Your task to perform on an android device: check android version Image 0: 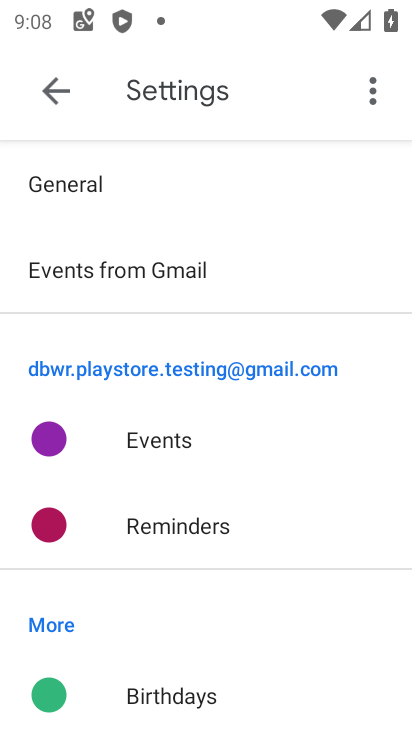
Step 0: press home button
Your task to perform on an android device: check android version Image 1: 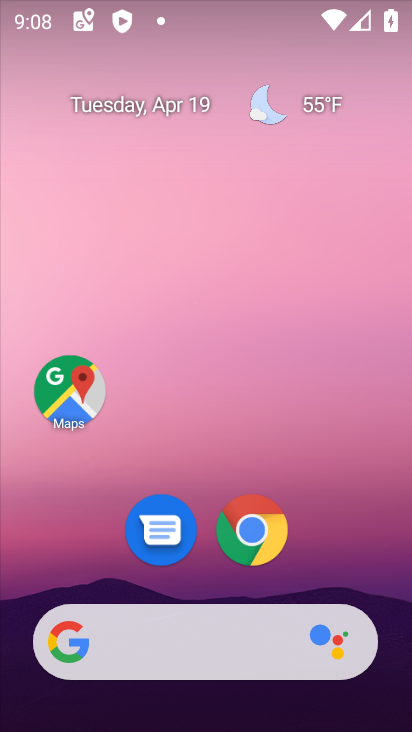
Step 1: drag from (208, 572) to (224, 132)
Your task to perform on an android device: check android version Image 2: 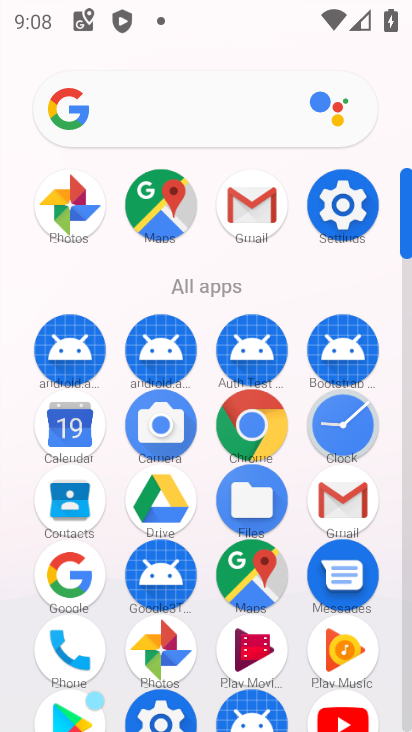
Step 2: click (338, 206)
Your task to perform on an android device: check android version Image 3: 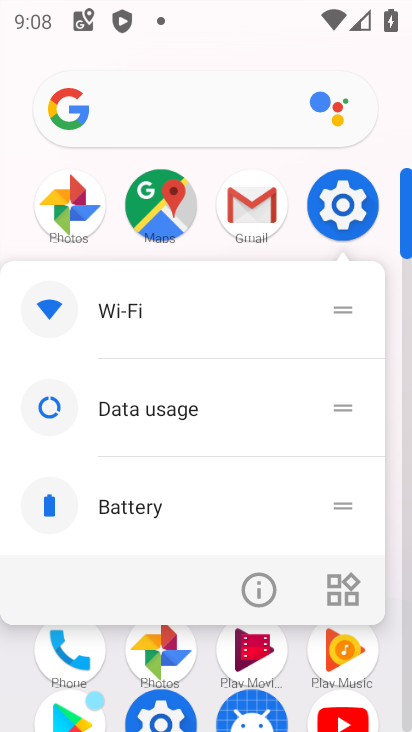
Step 3: click (341, 190)
Your task to perform on an android device: check android version Image 4: 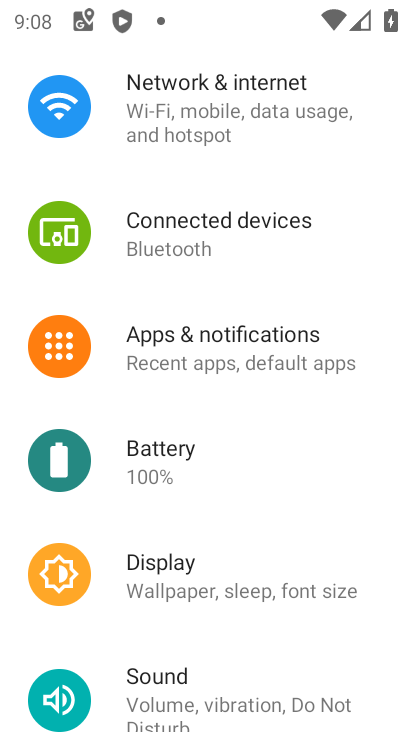
Step 4: drag from (229, 555) to (219, 48)
Your task to perform on an android device: check android version Image 5: 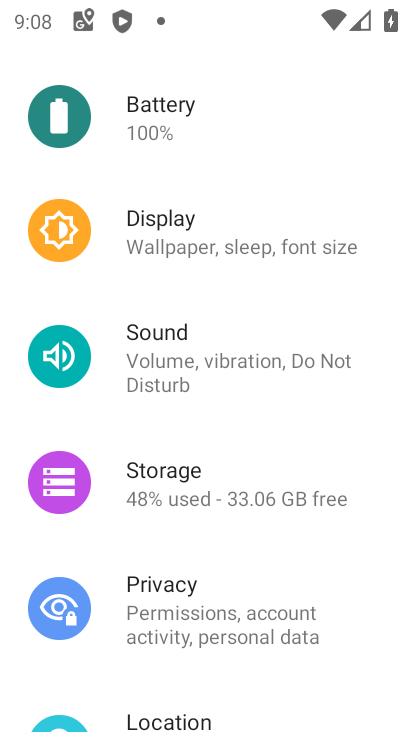
Step 5: drag from (264, 573) to (209, 30)
Your task to perform on an android device: check android version Image 6: 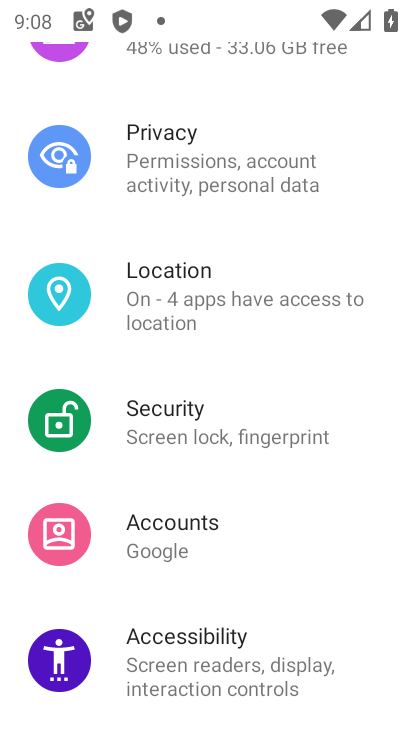
Step 6: drag from (247, 552) to (233, 44)
Your task to perform on an android device: check android version Image 7: 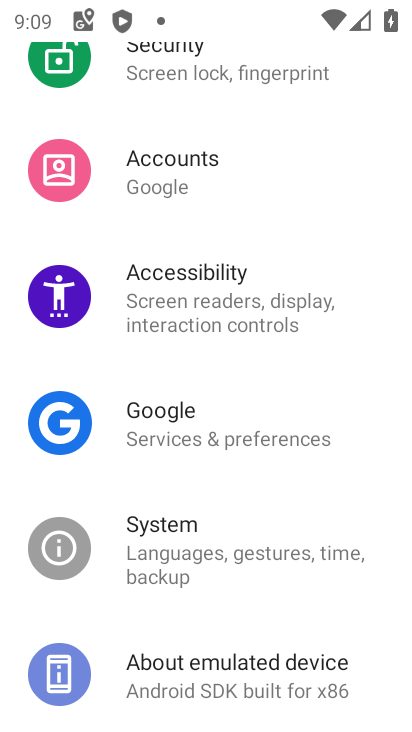
Step 7: drag from (198, 582) to (219, 132)
Your task to perform on an android device: check android version Image 8: 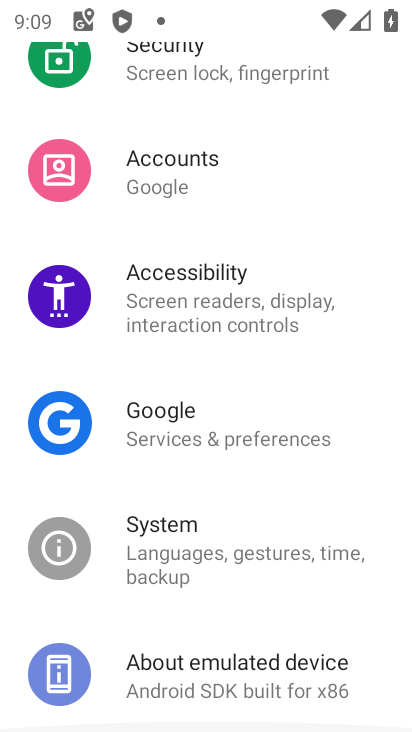
Step 8: click (188, 689)
Your task to perform on an android device: check android version Image 9: 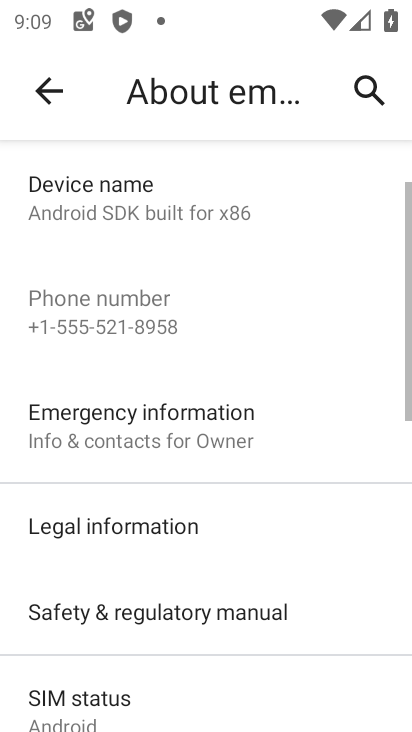
Step 9: drag from (209, 640) to (224, 268)
Your task to perform on an android device: check android version Image 10: 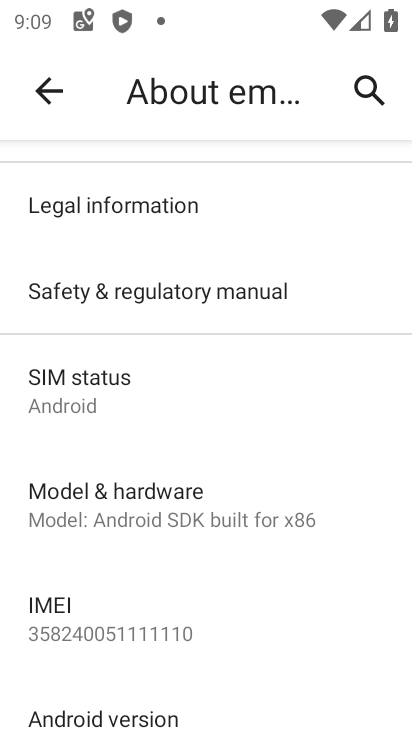
Step 10: drag from (211, 603) to (211, 457)
Your task to perform on an android device: check android version Image 11: 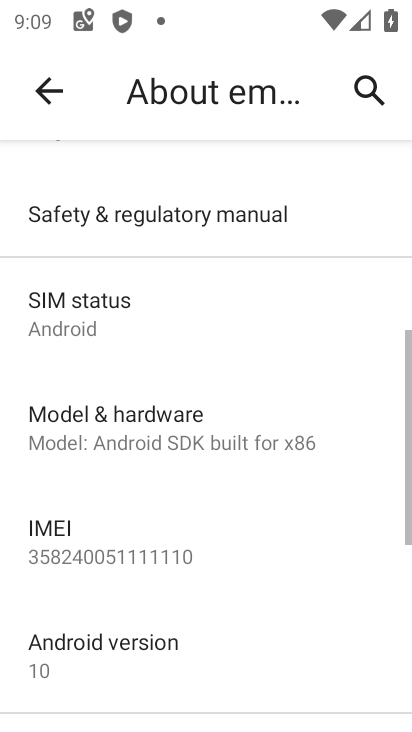
Step 11: click (144, 631)
Your task to perform on an android device: check android version Image 12: 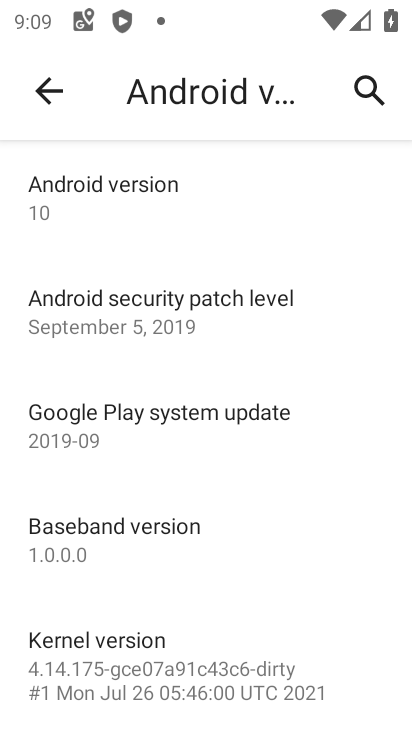
Step 12: task complete